Your task to perform on an android device: Open calendar and show me the fourth week of next month Image 0: 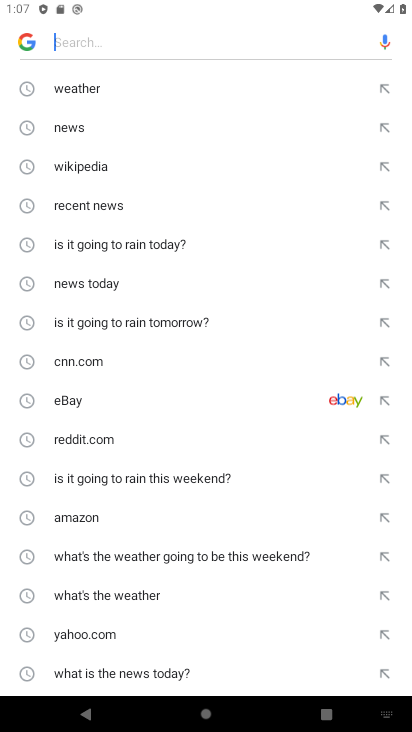
Step 0: press home button
Your task to perform on an android device: Open calendar and show me the fourth week of next month Image 1: 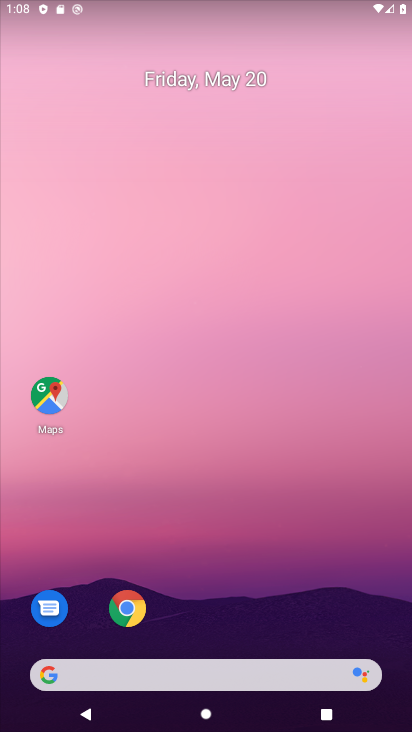
Step 1: drag from (197, 648) to (304, 144)
Your task to perform on an android device: Open calendar and show me the fourth week of next month Image 2: 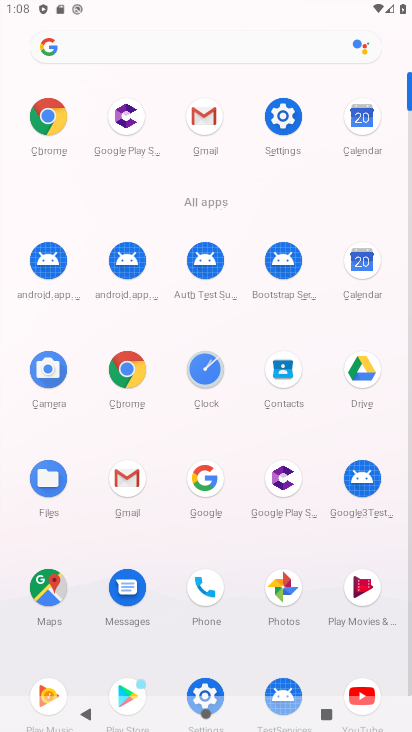
Step 2: click (354, 269)
Your task to perform on an android device: Open calendar and show me the fourth week of next month Image 3: 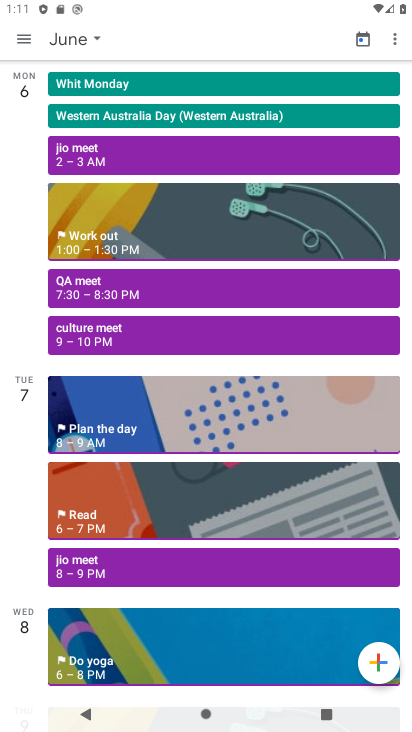
Step 3: click (77, 26)
Your task to perform on an android device: Open calendar and show me the fourth week of next month Image 4: 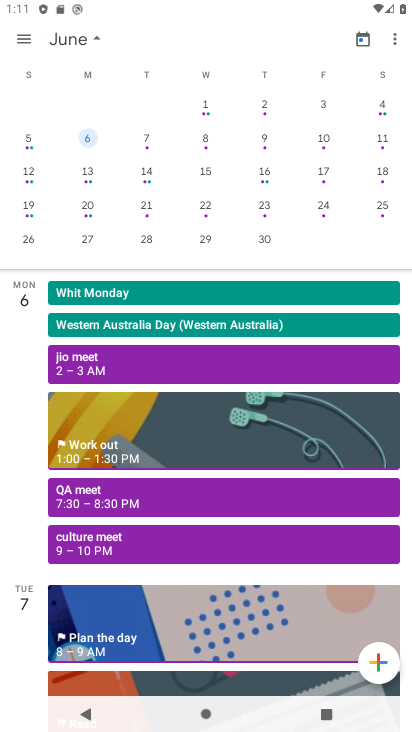
Step 4: drag from (383, 180) to (27, 186)
Your task to perform on an android device: Open calendar and show me the fourth week of next month Image 5: 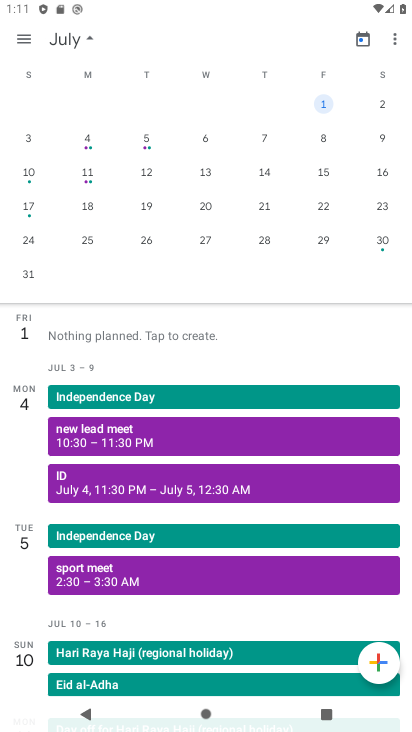
Step 5: click (87, 209)
Your task to perform on an android device: Open calendar and show me the fourth week of next month Image 6: 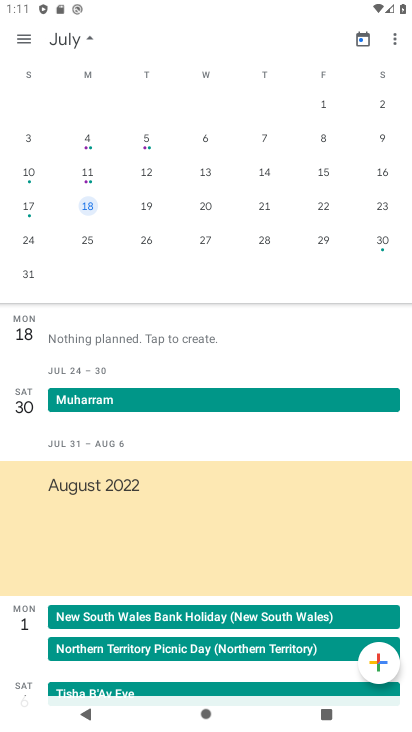
Step 6: task complete